Your task to perform on an android device: Open accessibility settings Image 0: 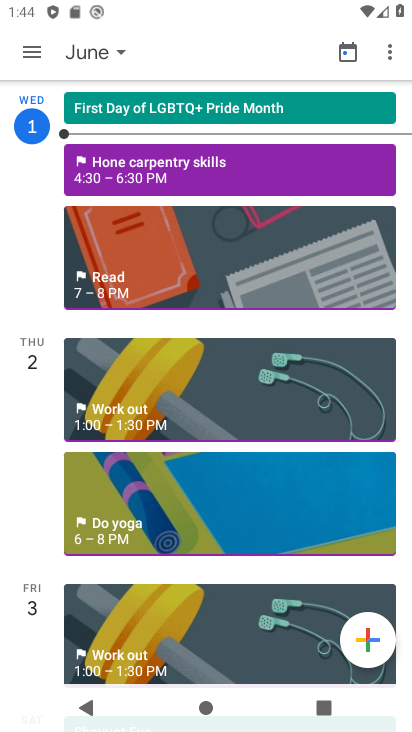
Step 0: press home button
Your task to perform on an android device: Open accessibility settings Image 1: 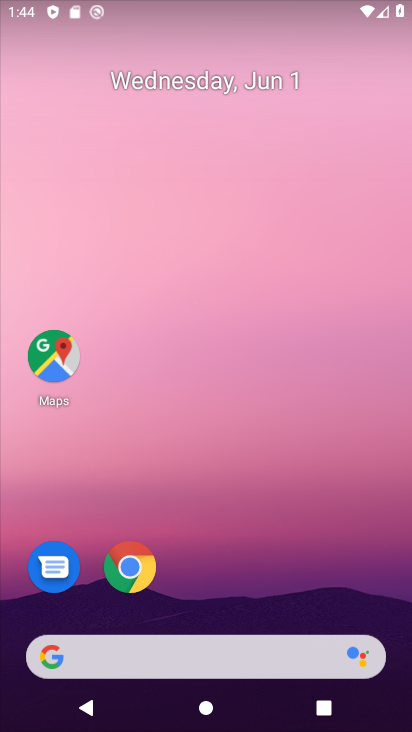
Step 1: drag from (262, 532) to (256, 23)
Your task to perform on an android device: Open accessibility settings Image 2: 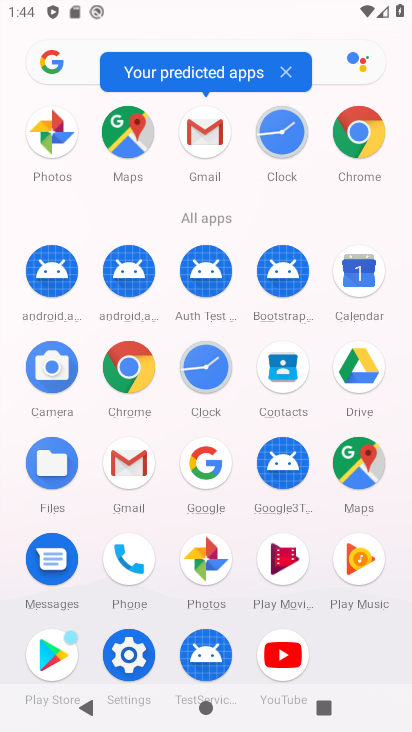
Step 2: click (128, 649)
Your task to perform on an android device: Open accessibility settings Image 3: 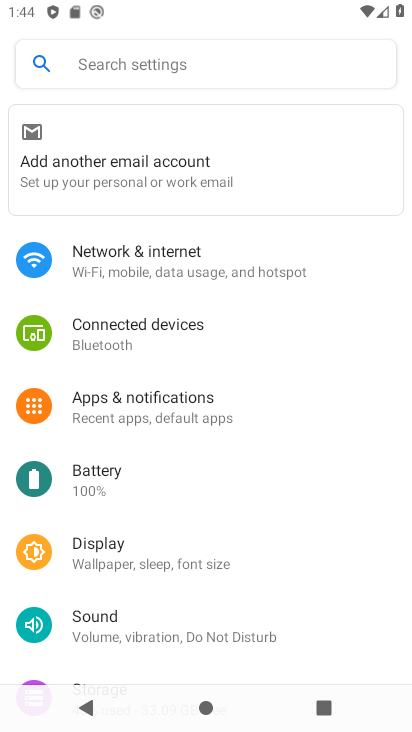
Step 3: drag from (251, 530) to (245, 217)
Your task to perform on an android device: Open accessibility settings Image 4: 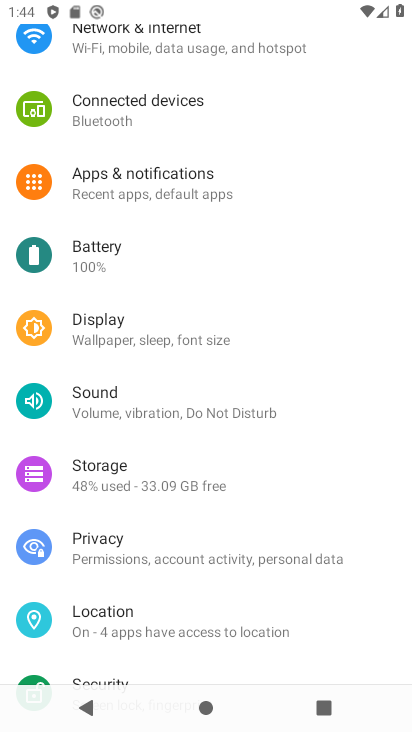
Step 4: drag from (194, 576) to (181, 229)
Your task to perform on an android device: Open accessibility settings Image 5: 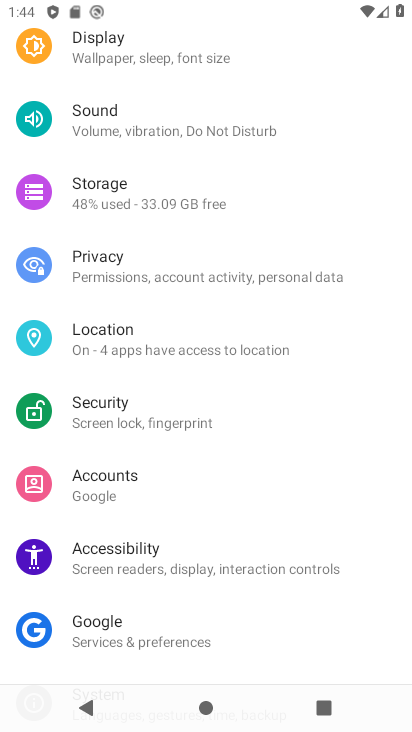
Step 5: click (119, 556)
Your task to perform on an android device: Open accessibility settings Image 6: 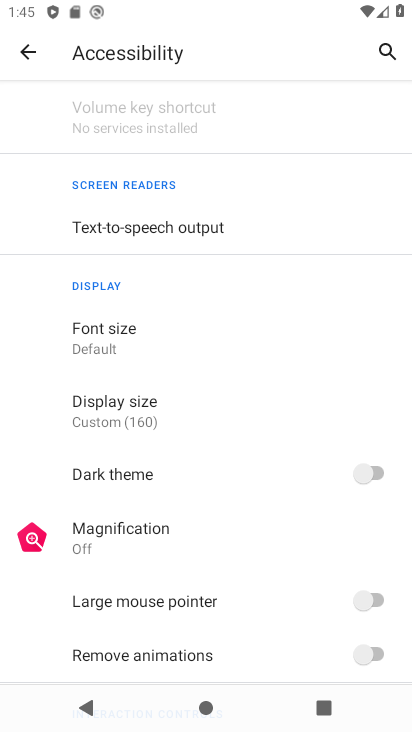
Step 6: task complete